Your task to perform on an android device: What's on my calendar for the rest of the month? Image 0: 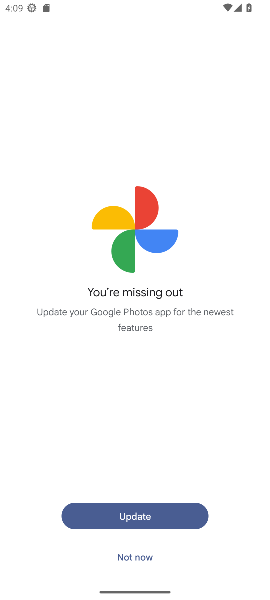
Step 0: press home button
Your task to perform on an android device: What's on my calendar for the rest of the month? Image 1: 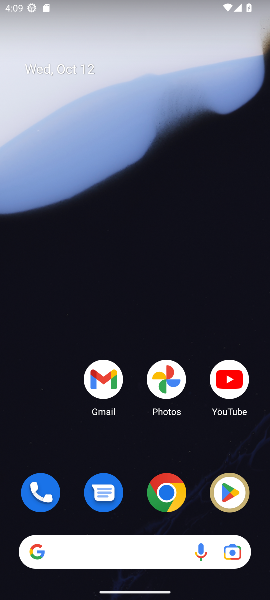
Step 1: drag from (160, 449) to (161, 58)
Your task to perform on an android device: What's on my calendar for the rest of the month? Image 2: 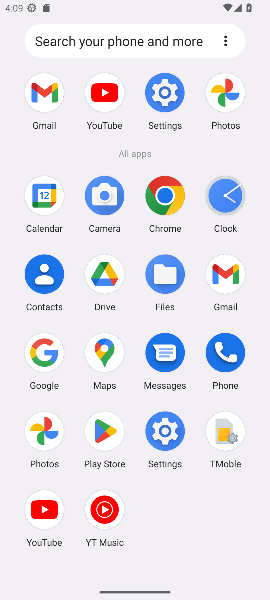
Step 2: click (36, 196)
Your task to perform on an android device: What's on my calendar for the rest of the month? Image 3: 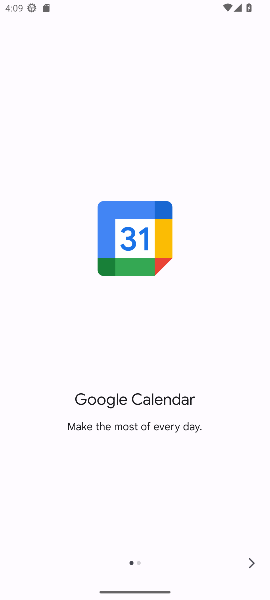
Step 3: click (251, 562)
Your task to perform on an android device: What's on my calendar for the rest of the month? Image 4: 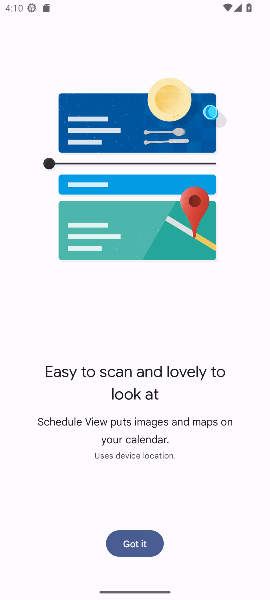
Step 4: click (149, 545)
Your task to perform on an android device: What's on my calendar for the rest of the month? Image 5: 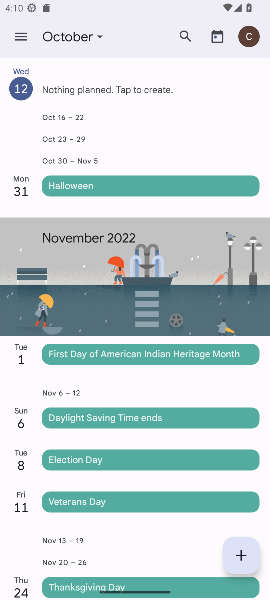
Step 5: click (22, 36)
Your task to perform on an android device: What's on my calendar for the rest of the month? Image 6: 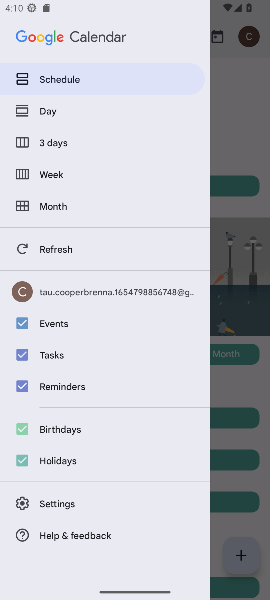
Step 6: click (52, 84)
Your task to perform on an android device: What's on my calendar for the rest of the month? Image 7: 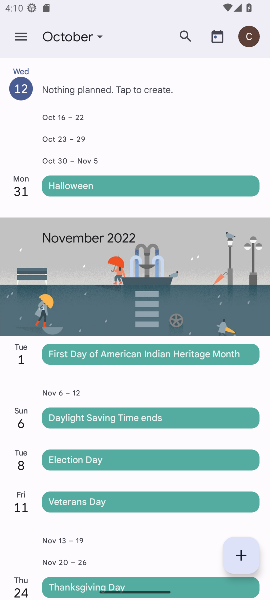
Step 7: click (108, 38)
Your task to perform on an android device: What's on my calendar for the rest of the month? Image 8: 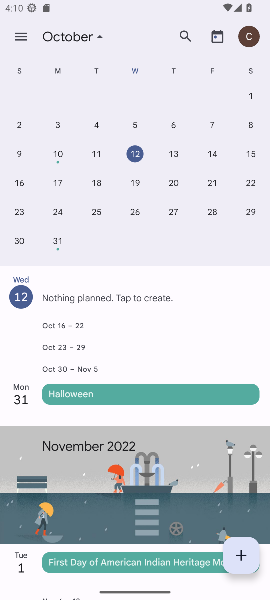
Step 8: drag from (188, 201) to (112, 200)
Your task to perform on an android device: What's on my calendar for the rest of the month? Image 9: 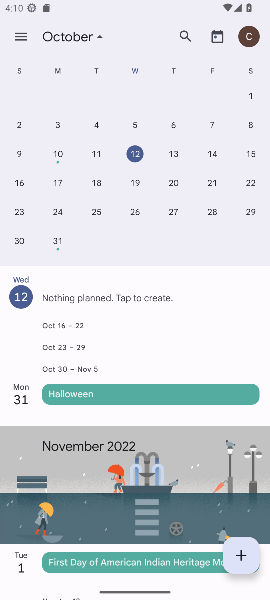
Step 9: click (16, 33)
Your task to perform on an android device: What's on my calendar for the rest of the month? Image 10: 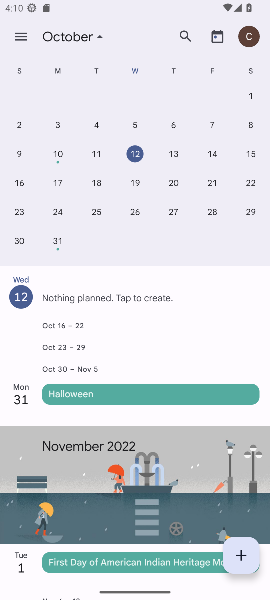
Step 10: task complete